Your task to perform on an android device: check battery use Image 0: 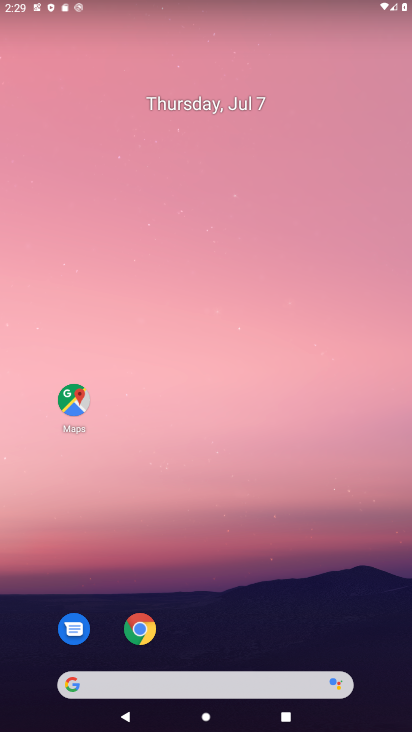
Step 0: drag from (216, 8) to (276, 515)
Your task to perform on an android device: check battery use Image 1: 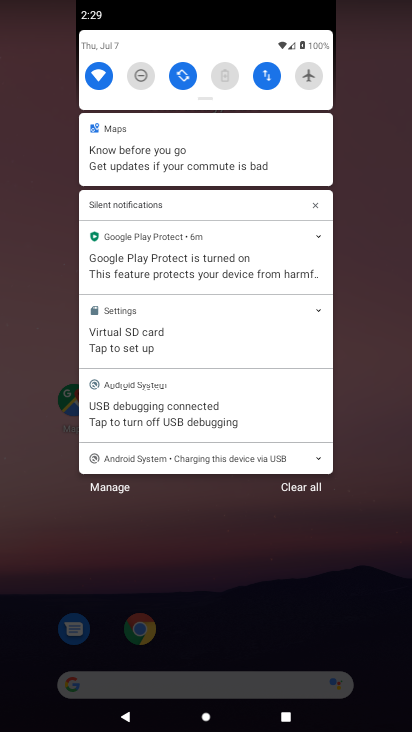
Step 1: drag from (236, 56) to (294, 518)
Your task to perform on an android device: check battery use Image 2: 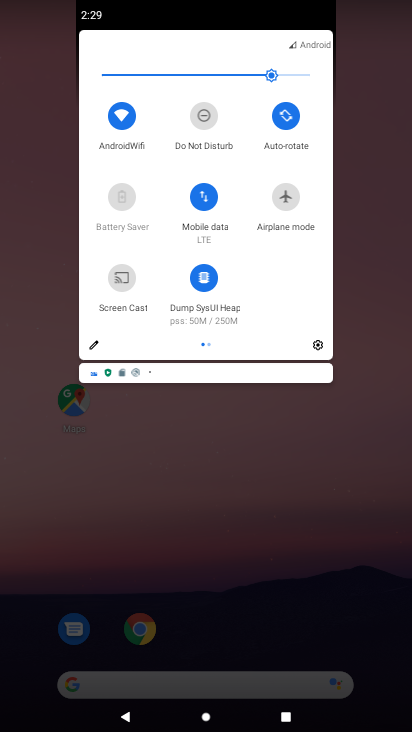
Step 2: drag from (308, 293) to (75, 301)
Your task to perform on an android device: check battery use Image 3: 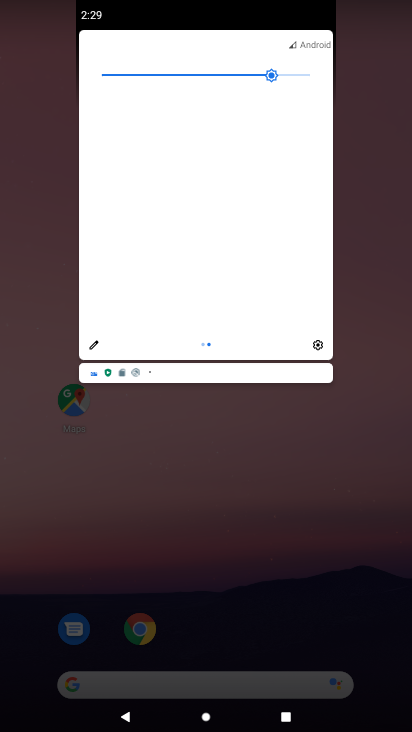
Step 3: click (316, 347)
Your task to perform on an android device: check battery use Image 4: 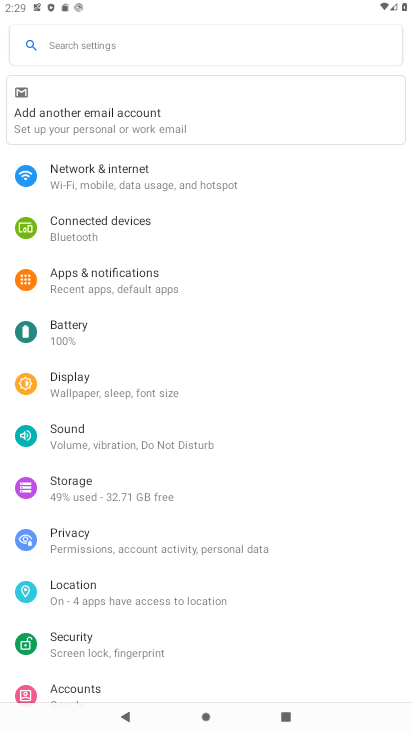
Step 4: click (68, 329)
Your task to perform on an android device: check battery use Image 5: 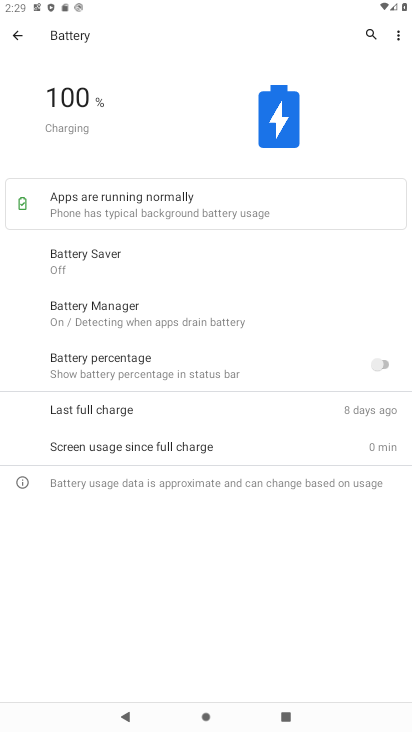
Step 5: click (401, 39)
Your task to perform on an android device: check battery use Image 6: 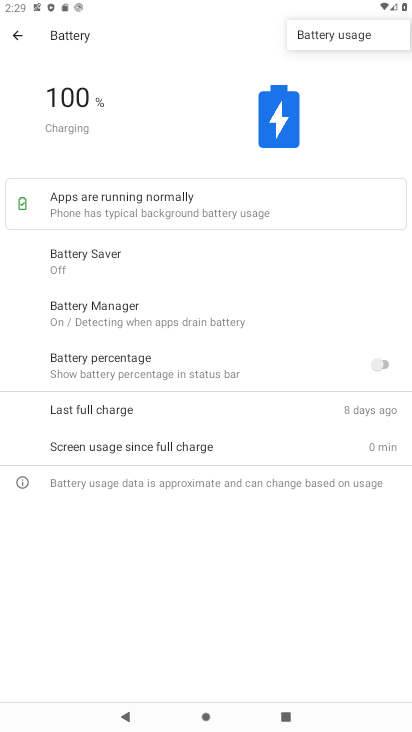
Step 6: click (334, 34)
Your task to perform on an android device: check battery use Image 7: 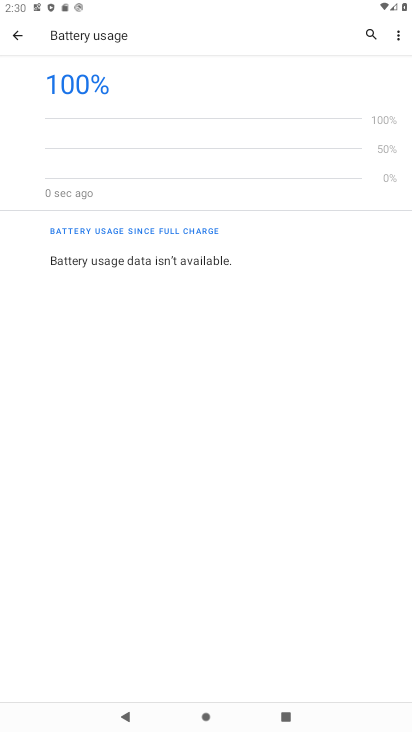
Step 7: task complete